Your task to perform on an android device: open app "Google Play Music" Image 0: 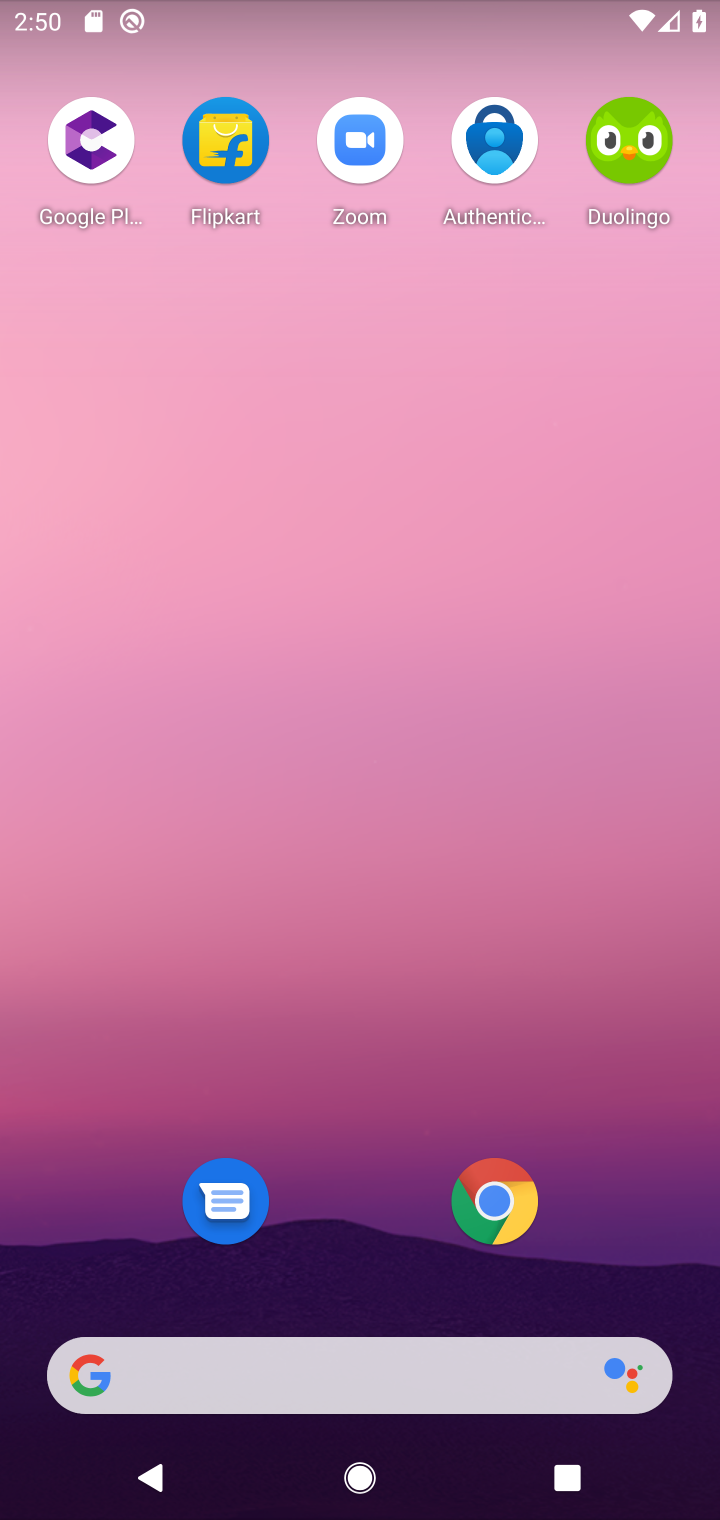
Step 0: drag from (649, 1125) to (556, 167)
Your task to perform on an android device: open app "Google Play Music" Image 1: 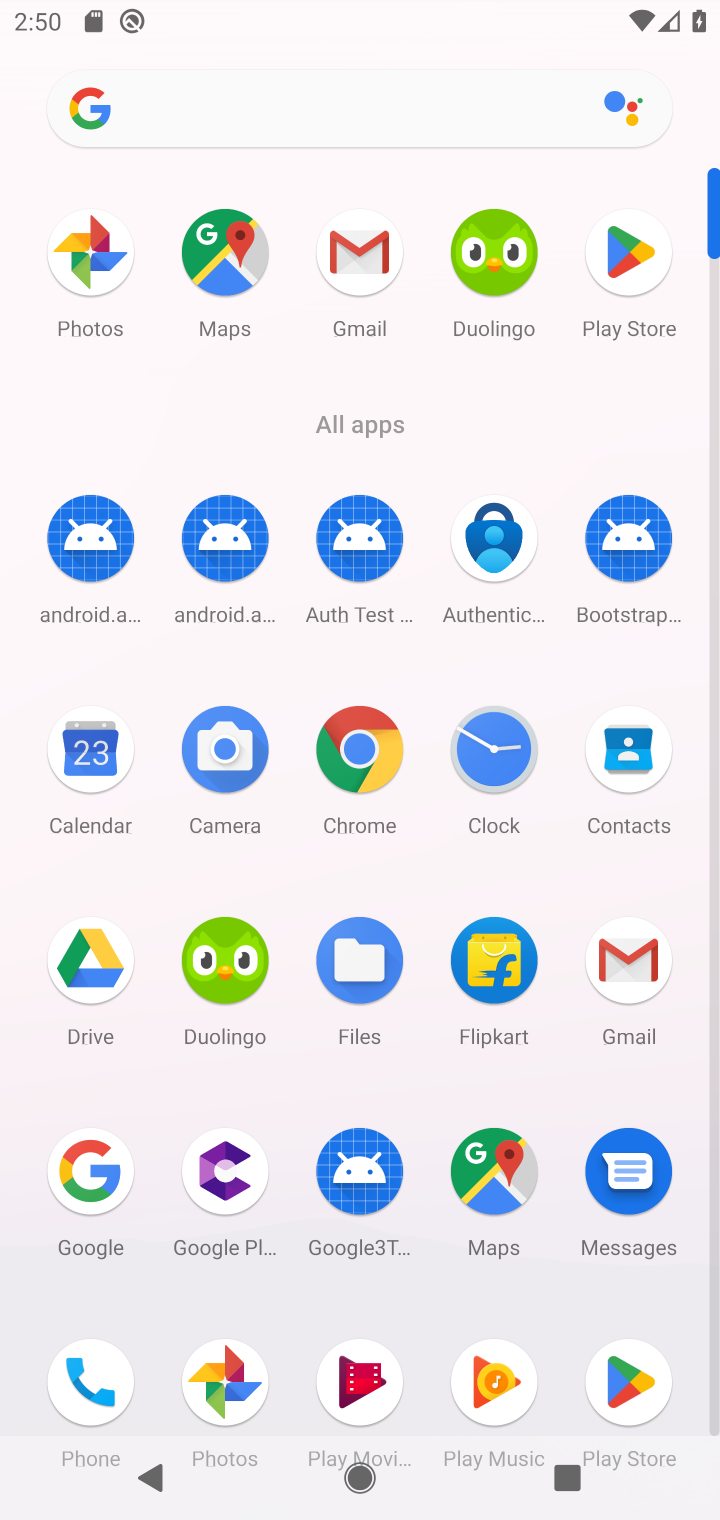
Step 1: click (627, 1380)
Your task to perform on an android device: open app "Google Play Music" Image 2: 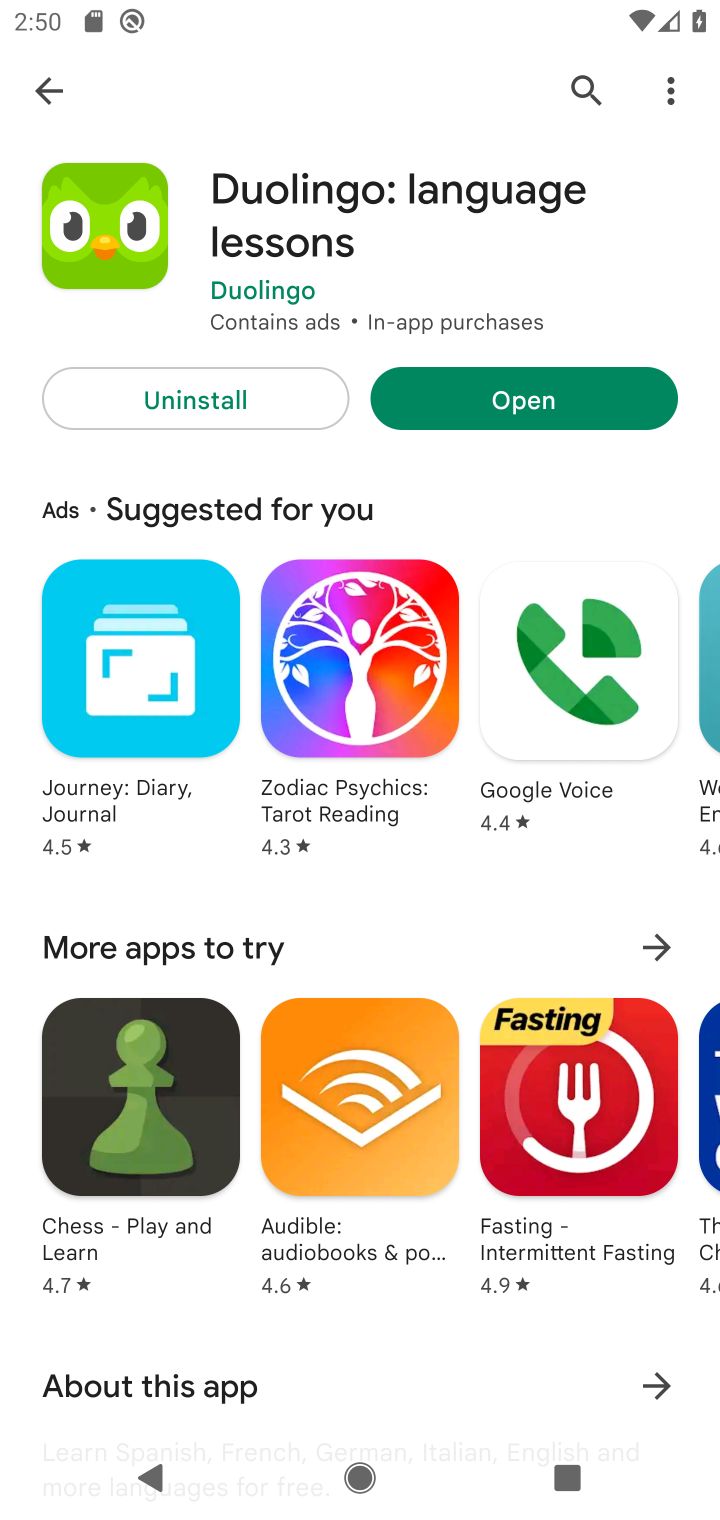
Step 2: click (576, 77)
Your task to perform on an android device: open app "Google Play Music" Image 3: 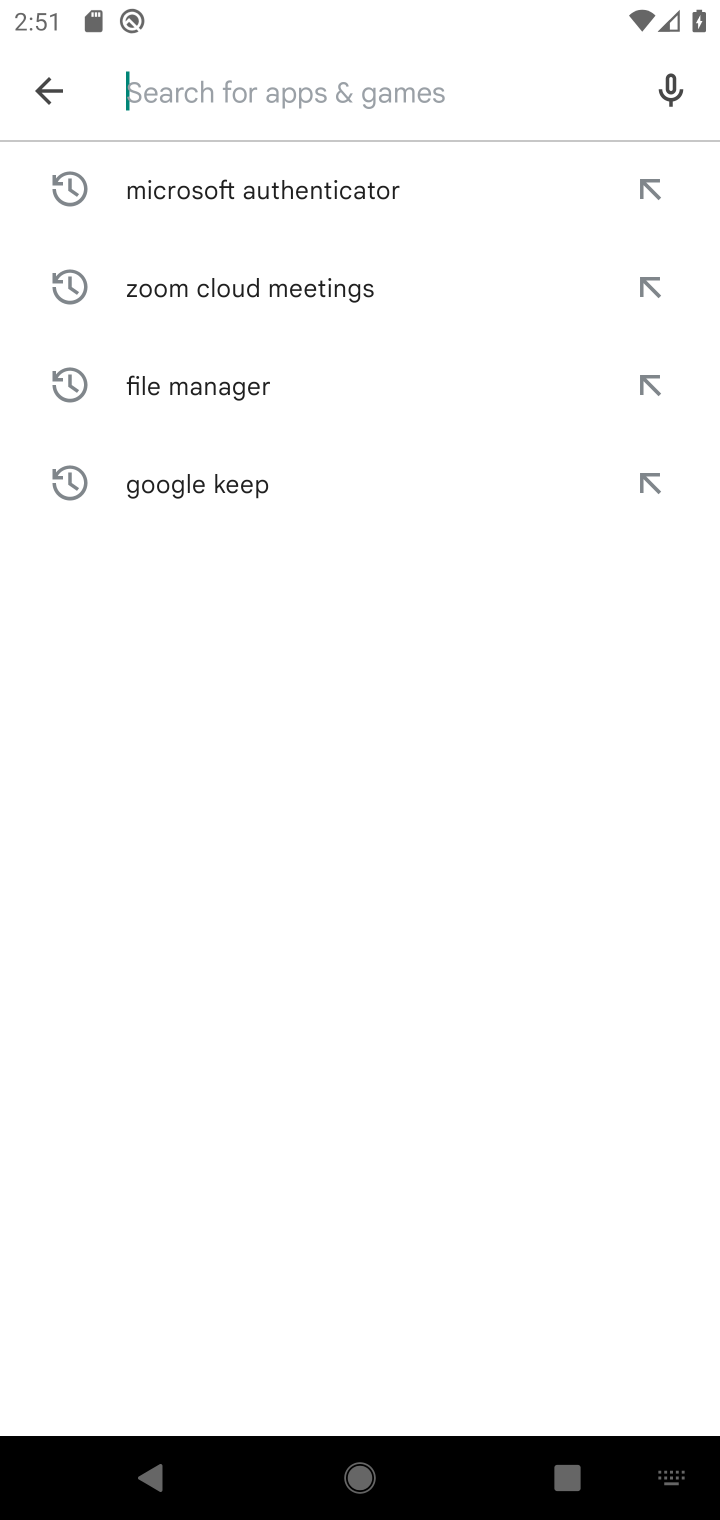
Step 3: type "Google Play Music"
Your task to perform on an android device: open app "Google Play Music" Image 4: 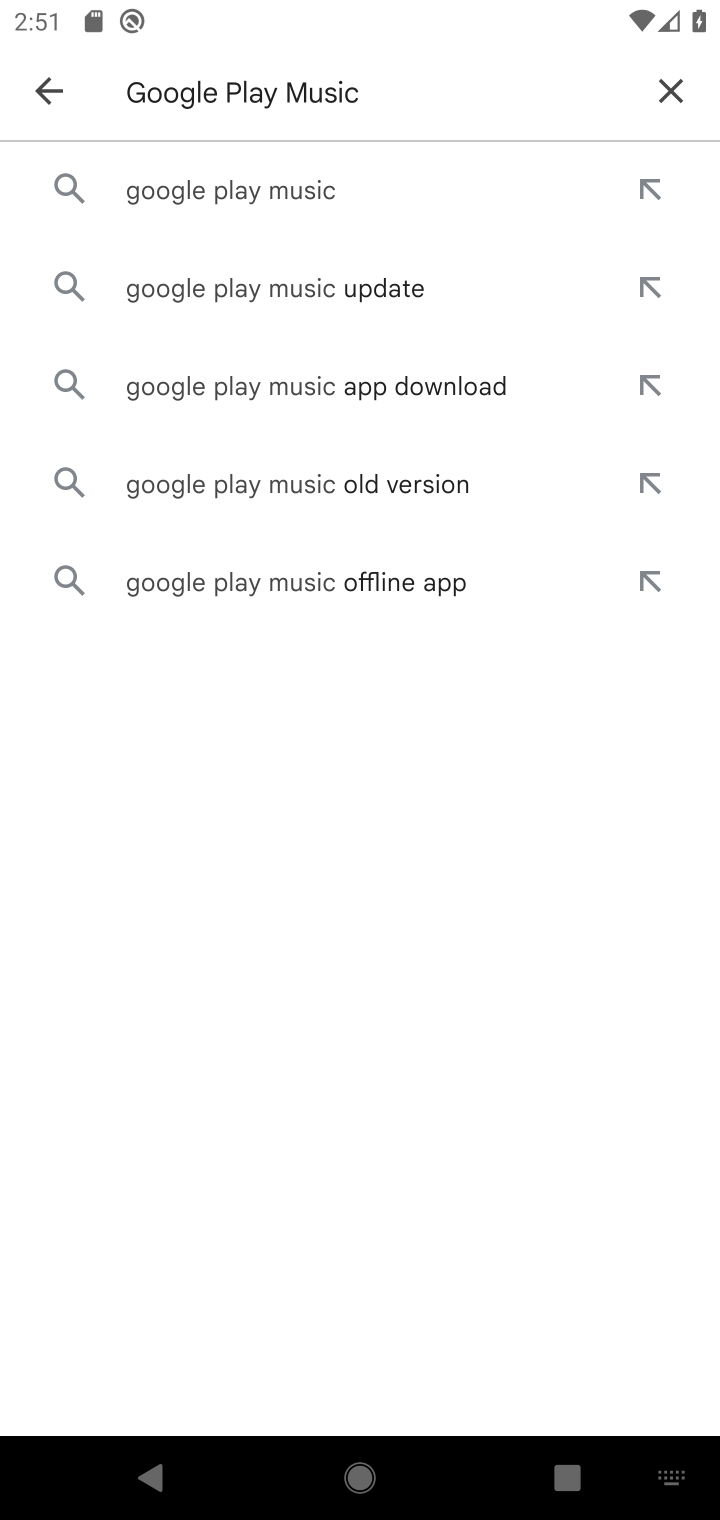
Step 4: click (261, 200)
Your task to perform on an android device: open app "Google Play Music" Image 5: 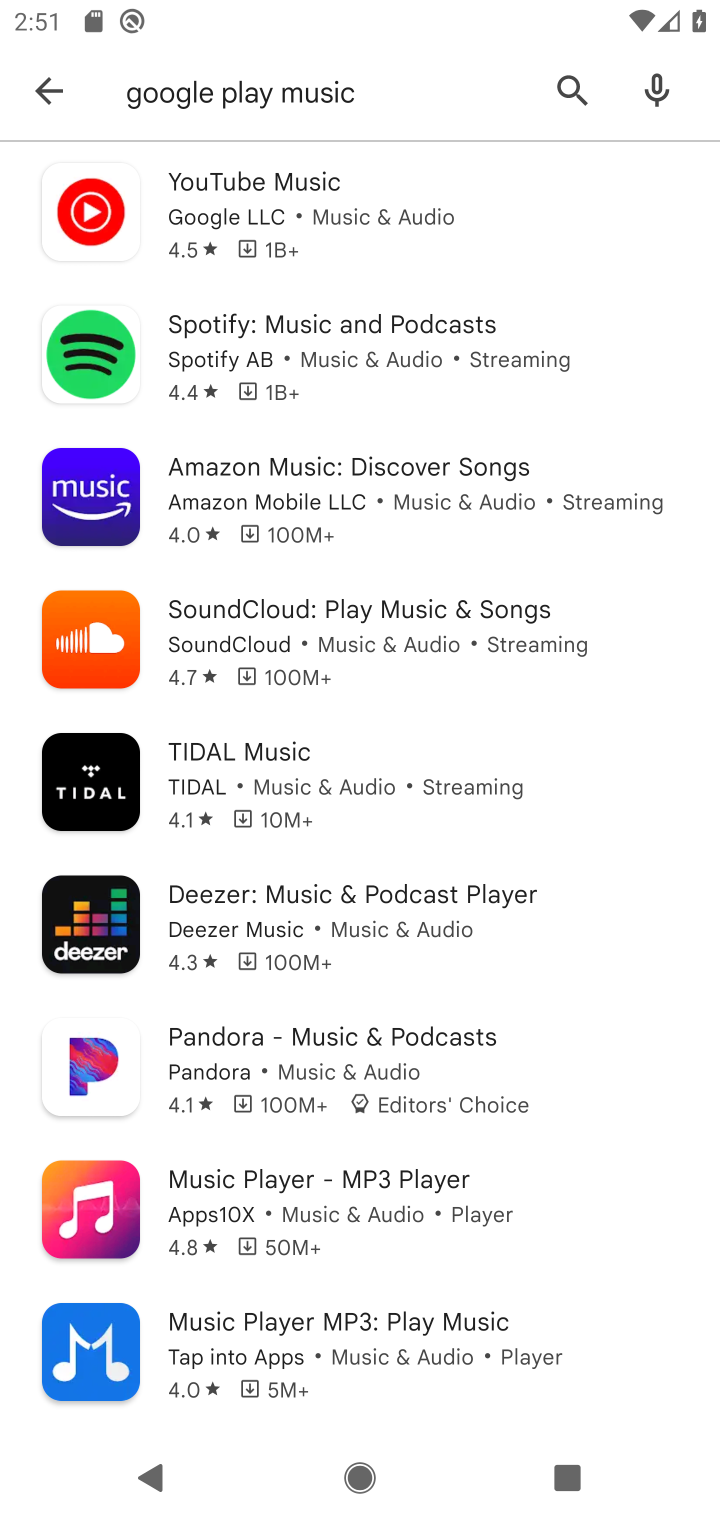
Step 5: drag from (533, 880) to (521, 388)
Your task to perform on an android device: open app "Google Play Music" Image 6: 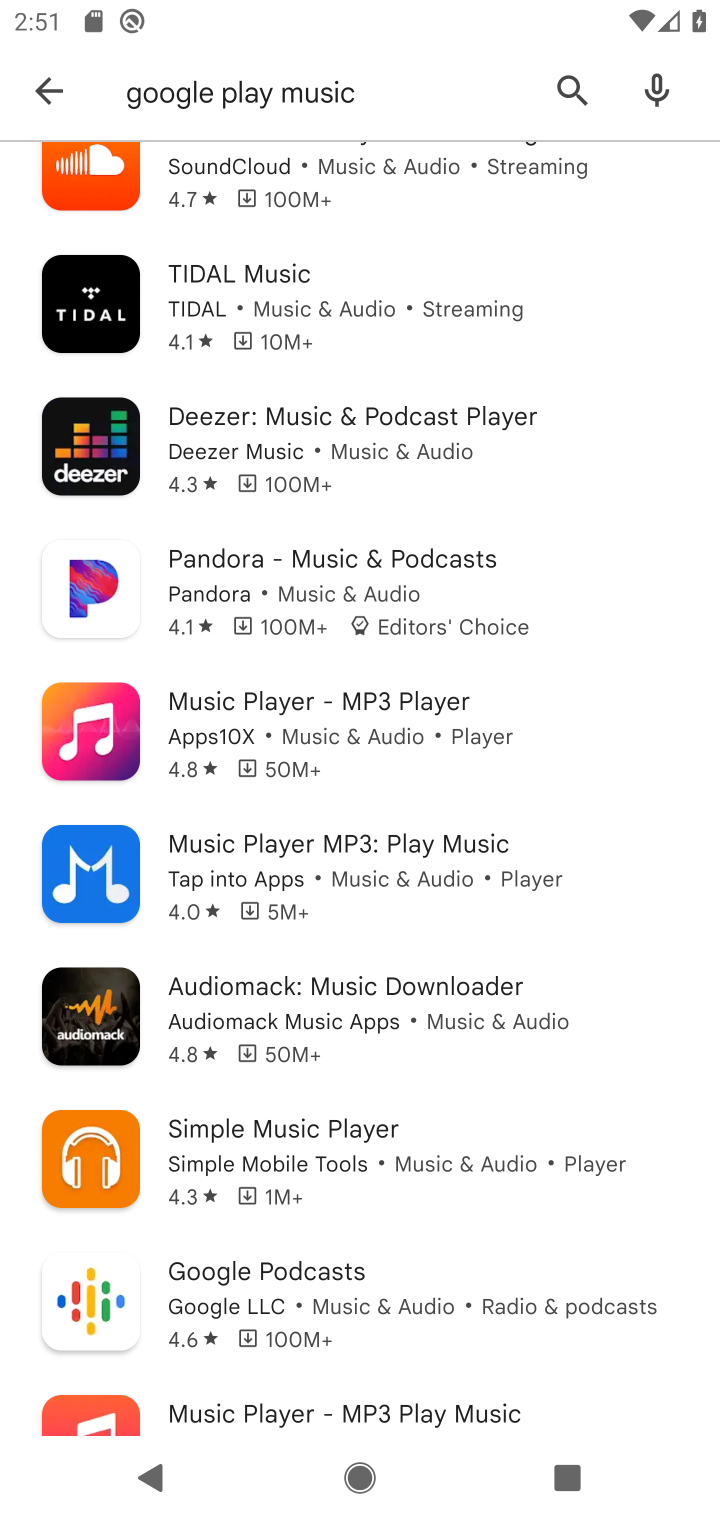
Step 6: drag from (584, 937) to (581, 692)
Your task to perform on an android device: open app "Google Play Music" Image 7: 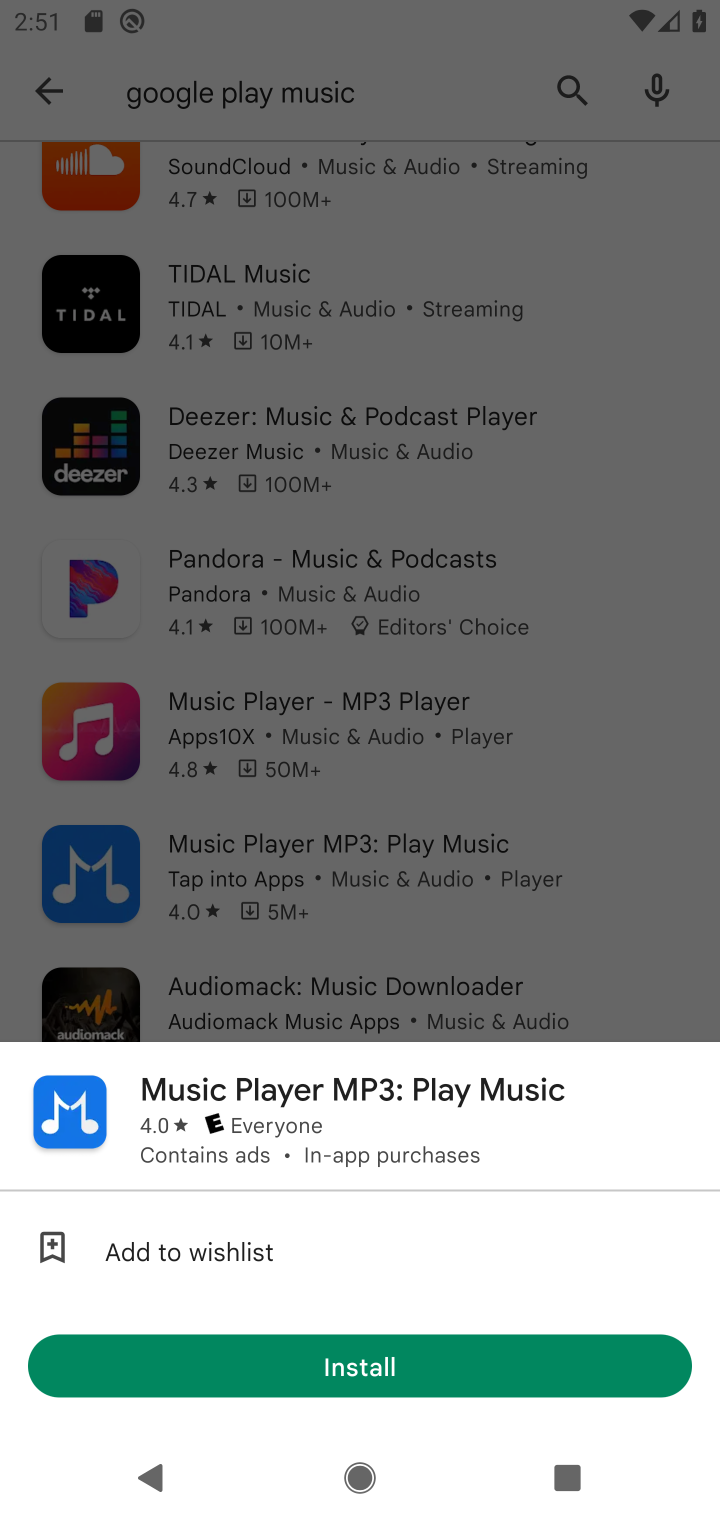
Step 7: click (577, 878)
Your task to perform on an android device: open app "Google Play Music" Image 8: 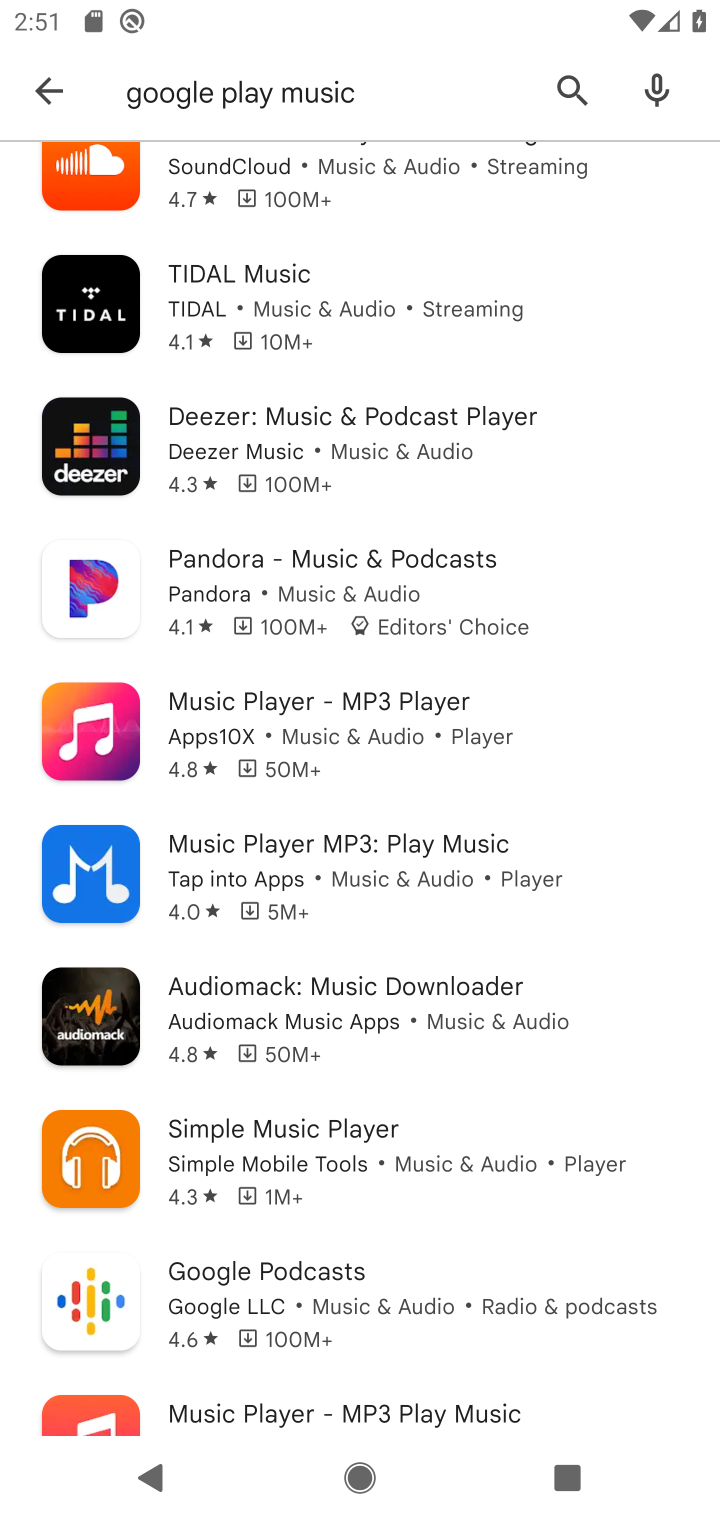
Step 8: drag from (553, 1156) to (538, 695)
Your task to perform on an android device: open app "Google Play Music" Image 9: 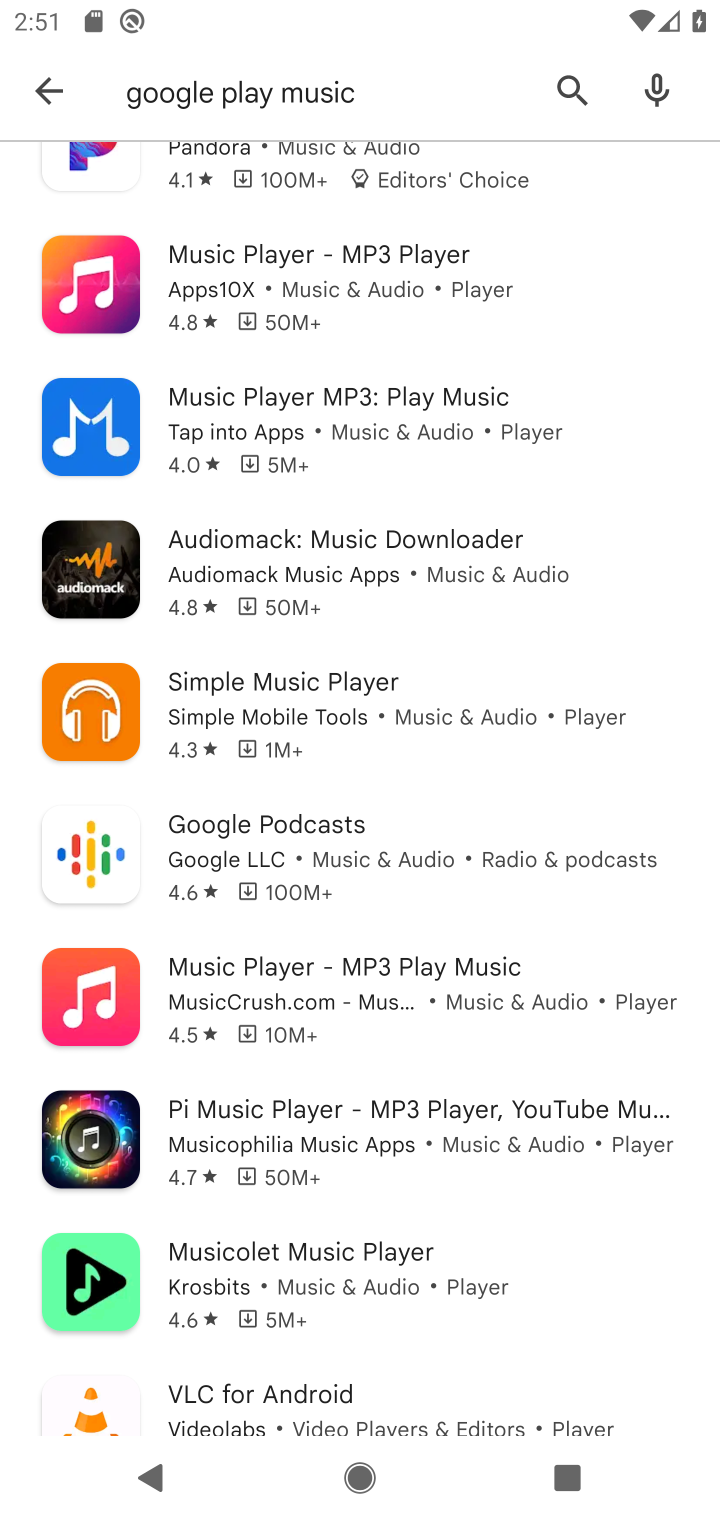
Step 9: drag from (602, 1167) to (566, 680)
Your task to perform on an android device: open app "Google Play Music" Image 10: 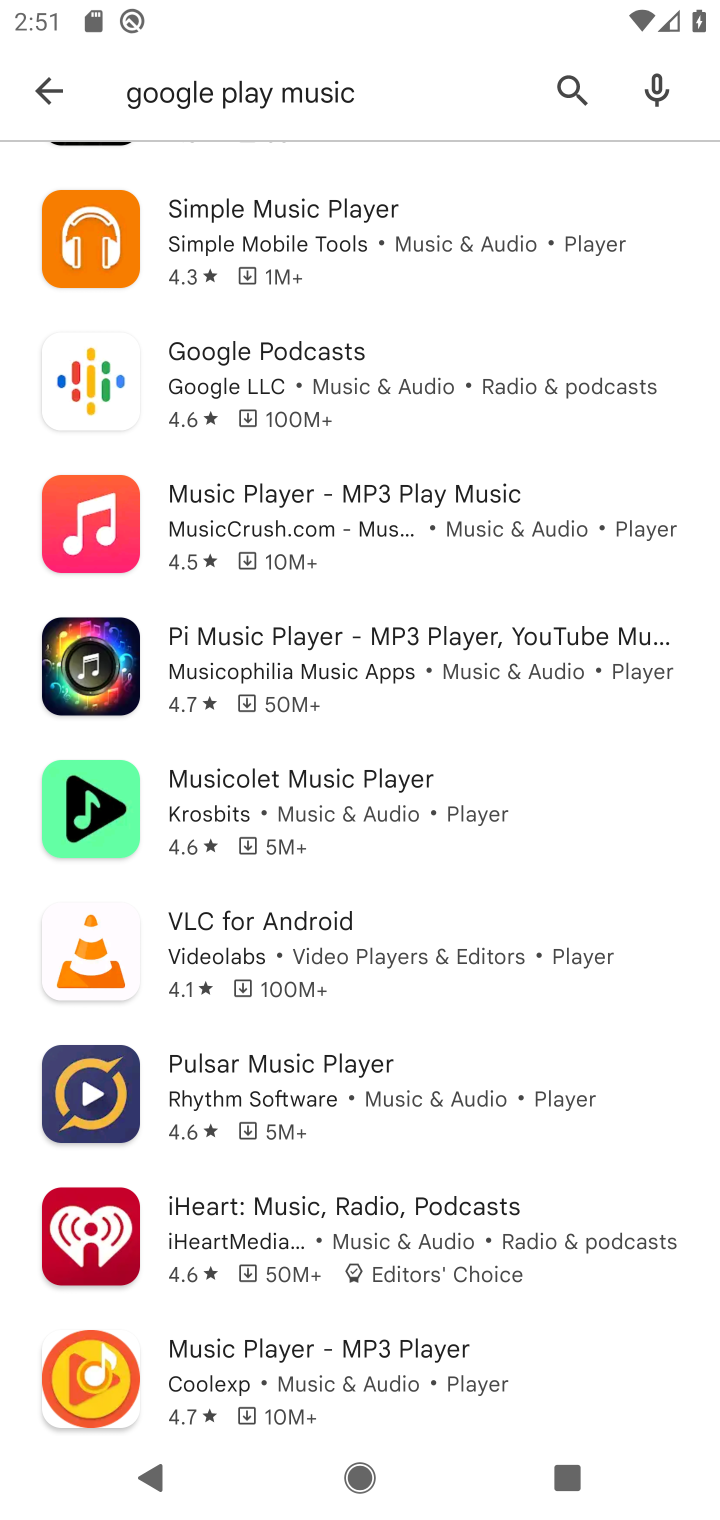
Step 10: drag from (590, 1190) to (546, 702)
Your task to perform on an android device: open app "Google Play Music" Image 11: 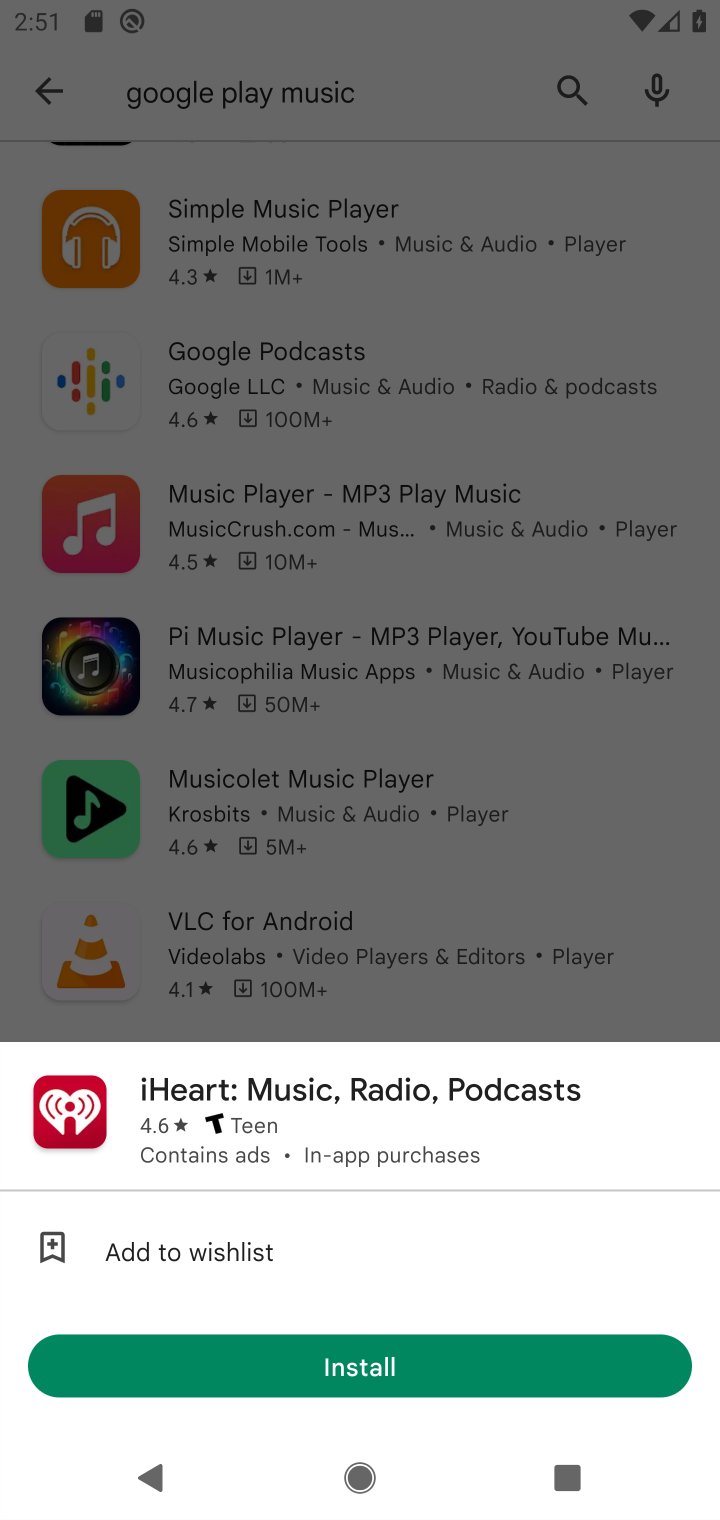
Step 11: click (546, 702)
Your task to perform on an android device: open app "Google Play Music" Image 12: 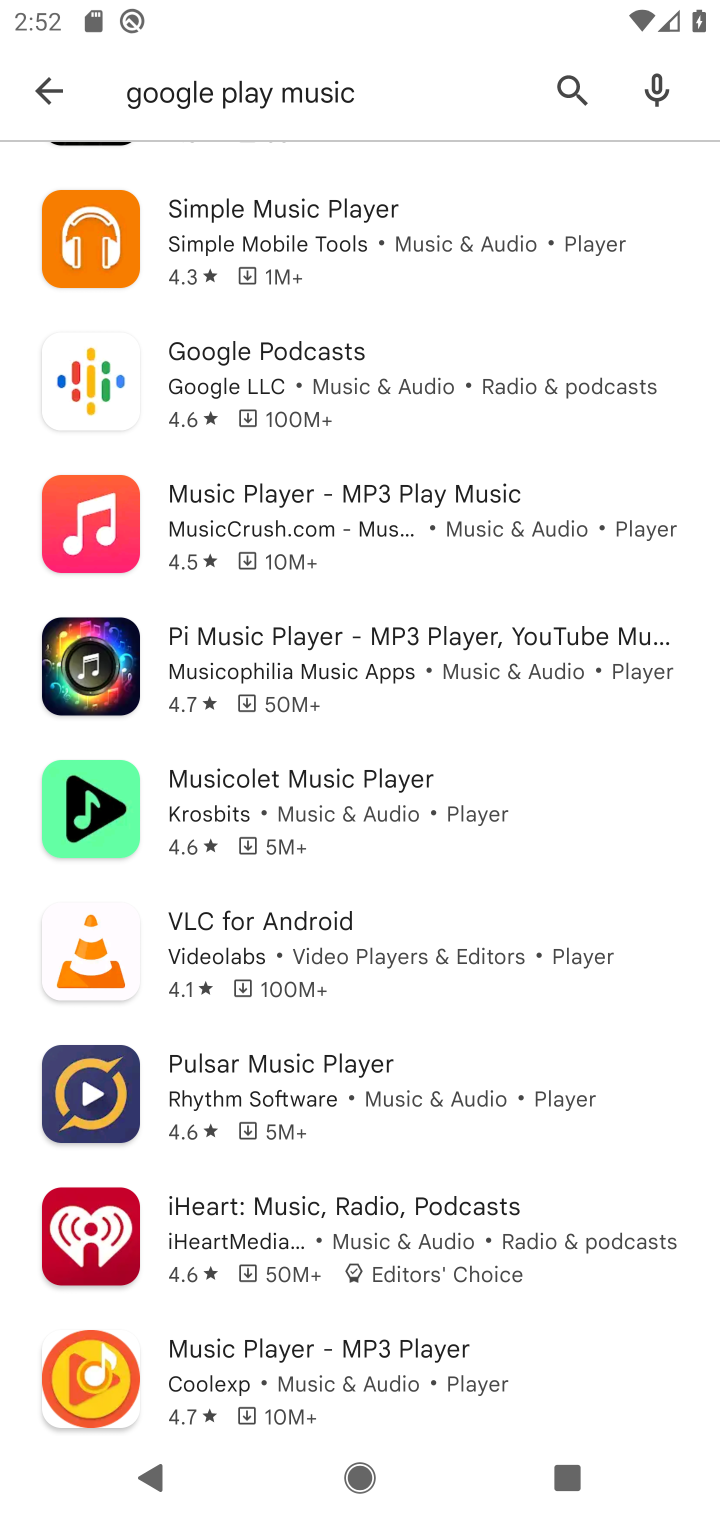
Step 12: task complete